Your task to perform on an android device: visit the assistant section in the google photos Image 0: 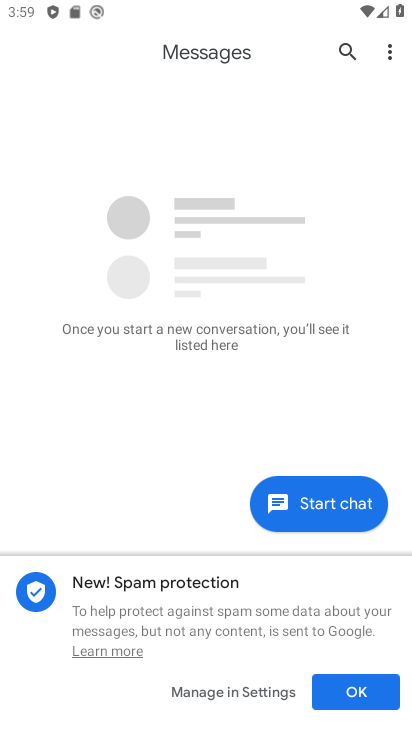
Step 0: press home button
Your task to perform on an android device: visit the assistant section in the google photos Image 1: 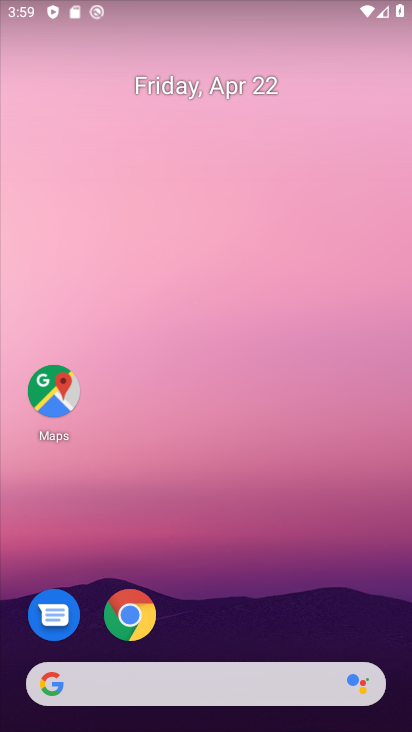
Step 1: drag from (256, 540) to (325, 93)
Your task to perform on an android device: visit the assistant section in the google photos Image 2: 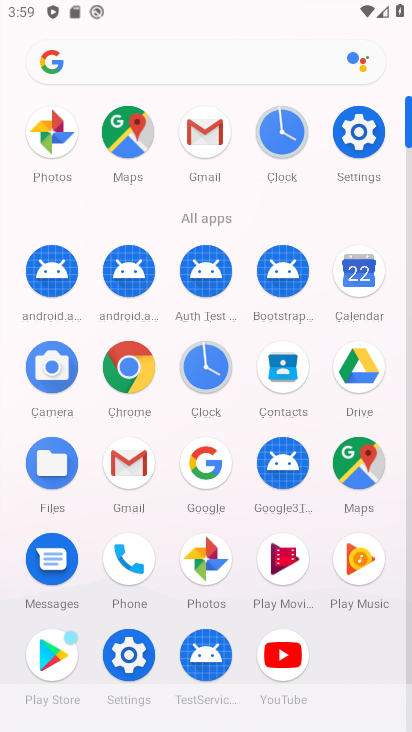
Step 2: click (214, 555)
Your task to perform on an android device: visit the assistant section in the google photos Image 3: 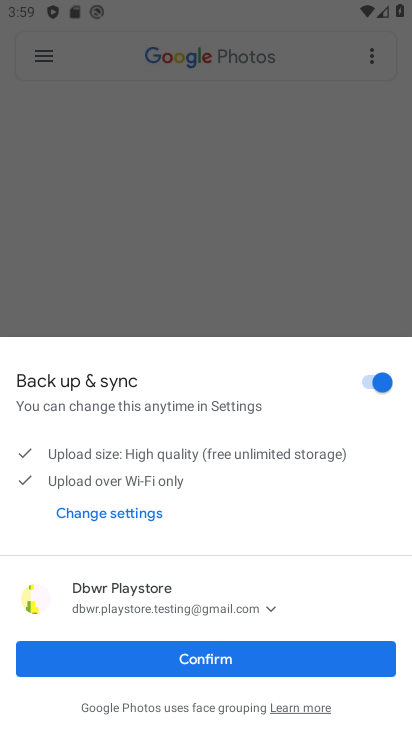
Step 3: click (257, 653)
Your task to perform on an android device: visit the assistant section in the google photos Image 4: 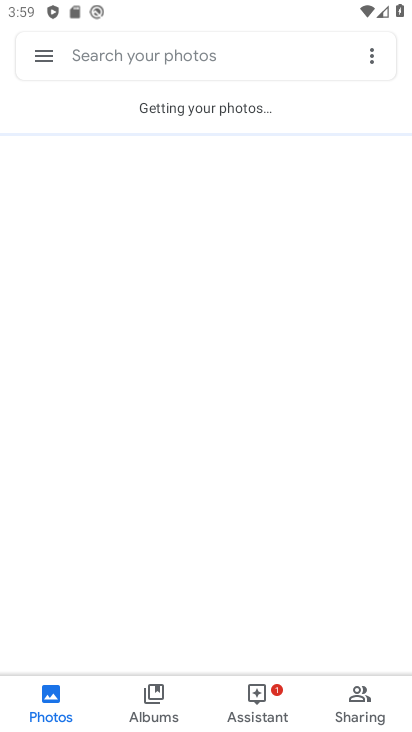
Step 4: click (260, 682)
Your task to perform on an android device: visit the assistant section in the google photos Image 5: 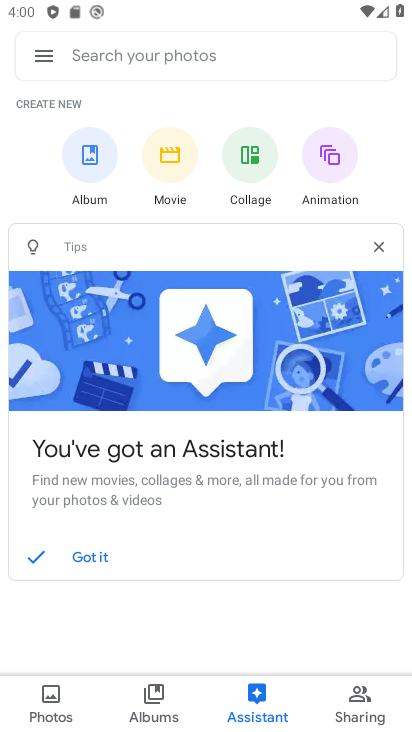
Step 5: task complete